Your task to perform on an android device: allow notifications from all sites in the chrome app Image 0: 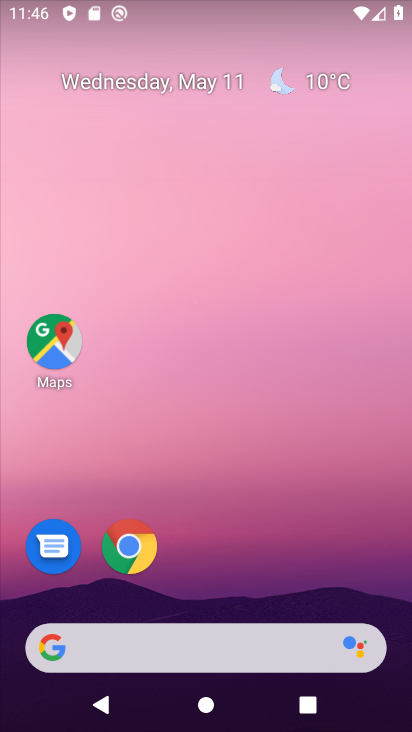
Step 0: drag from (163, 532) to (162, 181)
Your task to perform on an android device: allow notifications from all sites in the chrome app Image 1: 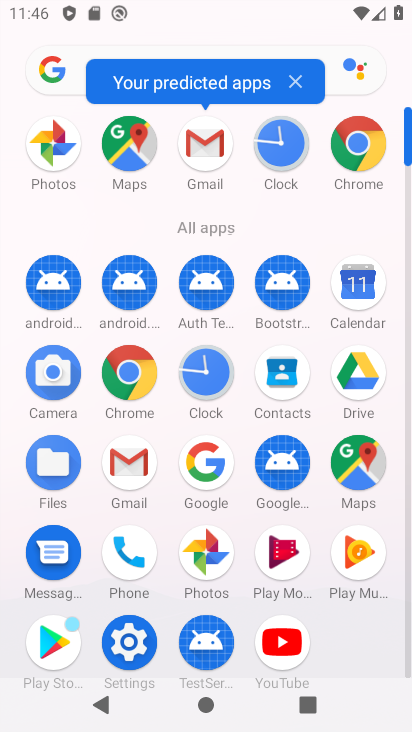
Step 1: click (357, 146)
Your task to perform on an android device: allow notifications from all sites in the chrome app Image 2: 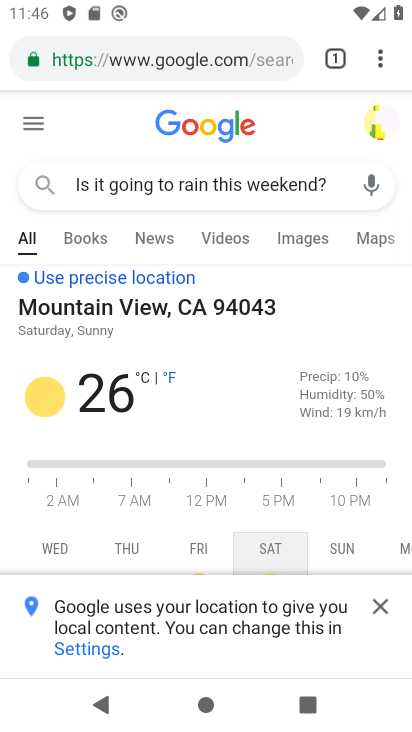
Step 2: click (380, 60)
Your task to perform on an android device: allow notifications from all sites in the chrome app Image 3: 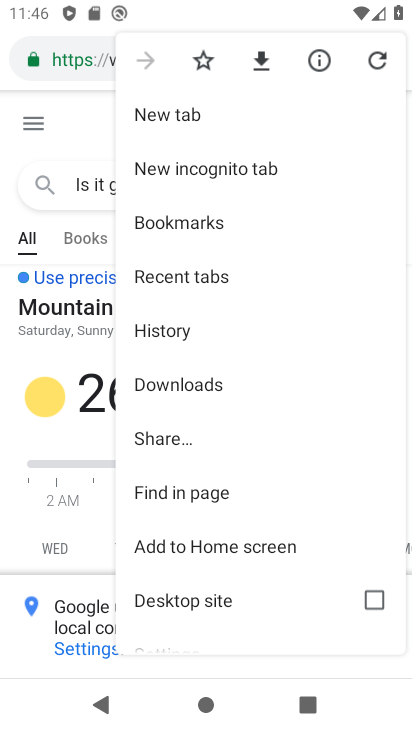
Step 3: drag from (202, 627) to (251, 361)
Your task to perform on an android device: allow notifications from all sites in the chrome app Image 4: 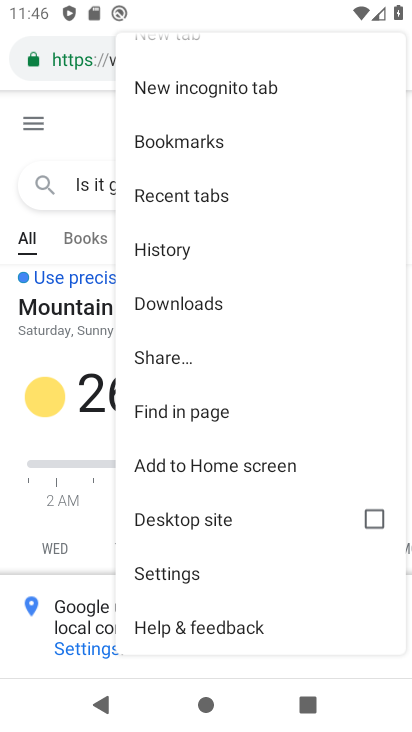
Step 4: click (181, 570)
Your task to perform on an android device: allow notifications from all sites in the chrome app Image 5: 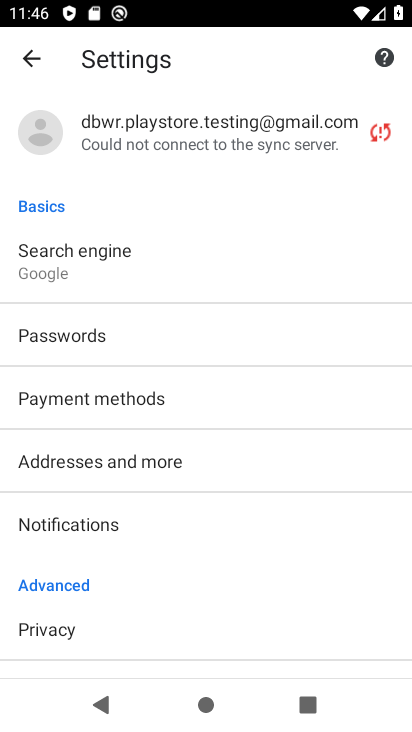
Step 5: drag from (128, 560) to (139, 298)
Your task to perform on an android device: allow notifications from all sites in the chrome app Image 6: 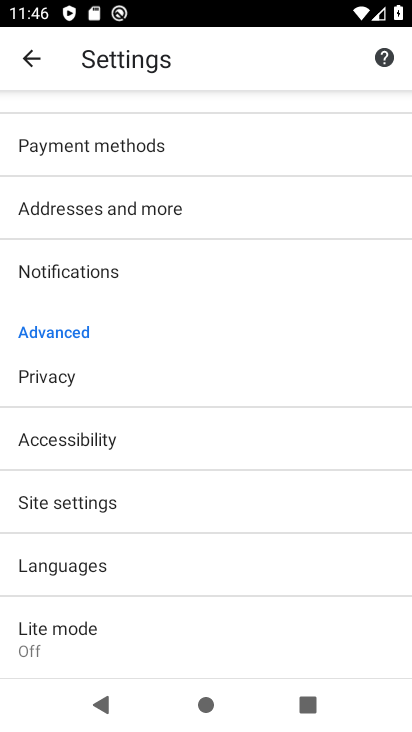
Step 6: click (104, 278)
Your task to perform on an android device: allow notifications from all sites in the chrome app Image 7: 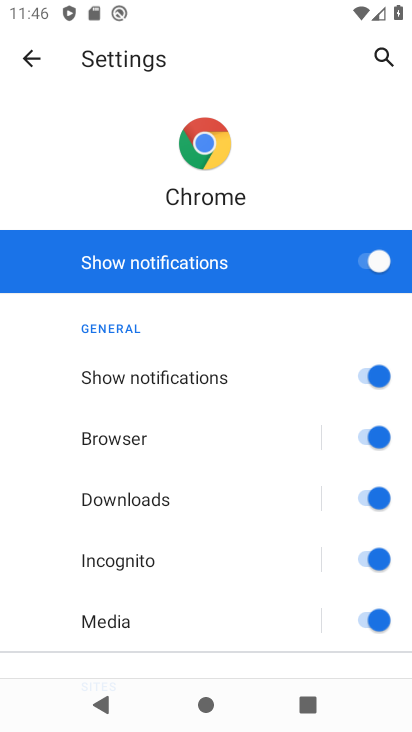
Step 7: task complete